Your task to perform on an android device: Open Google Chrome Image 0: 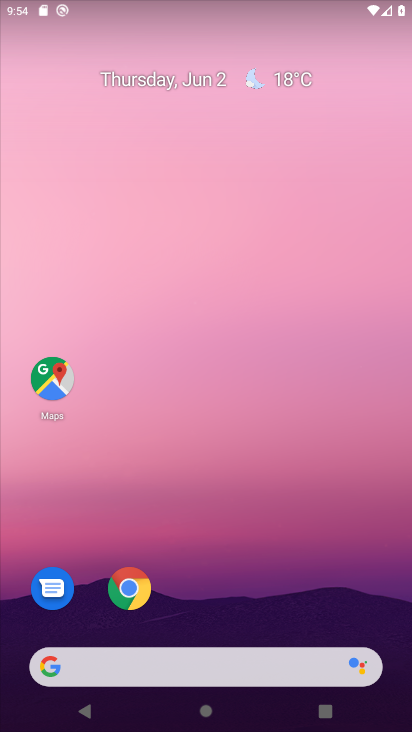
Step 0: drag from (271, 711) to (211, 127)
Your task to perform on an android device: Open Google Chrome Image 1: 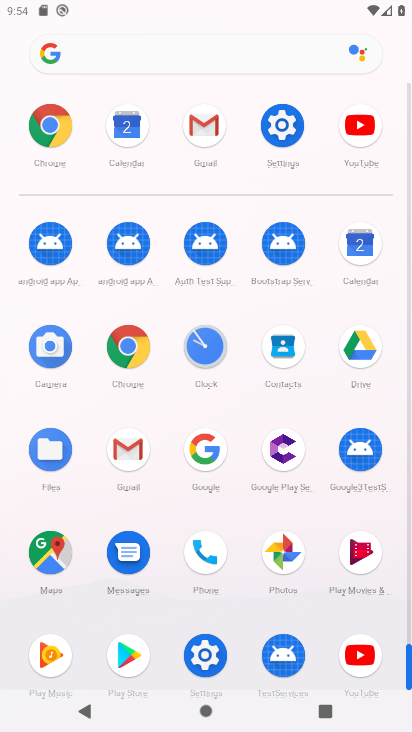
Step 1: click (45, 129)
Your task to perform on an android device: Open Google Chrome Image 2: 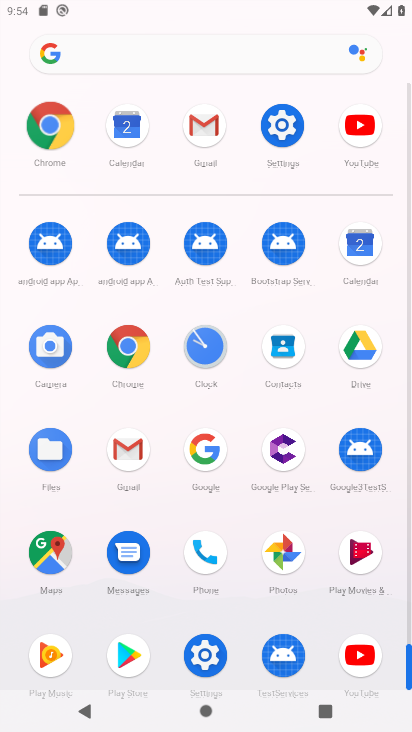
Step 2: click (45, 129)
Your task to perform on an android device: Open Google Chrome Image 3: 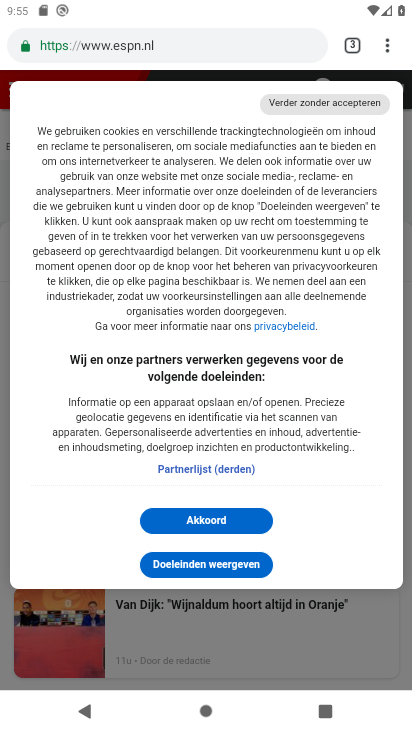
Step 3: click (386, 54)
Your task to perform on an android device: Open Google Chrome Image 4: 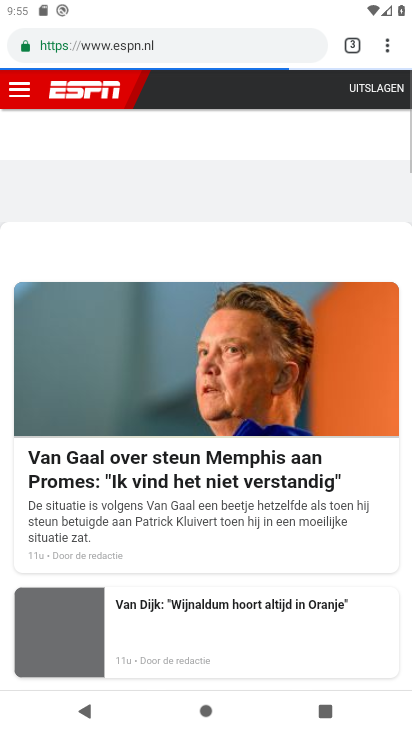
Step 4: drag from (389, 48) to (235, 89)
Your task to perform on an android device: Open Google Chrome Image 5: 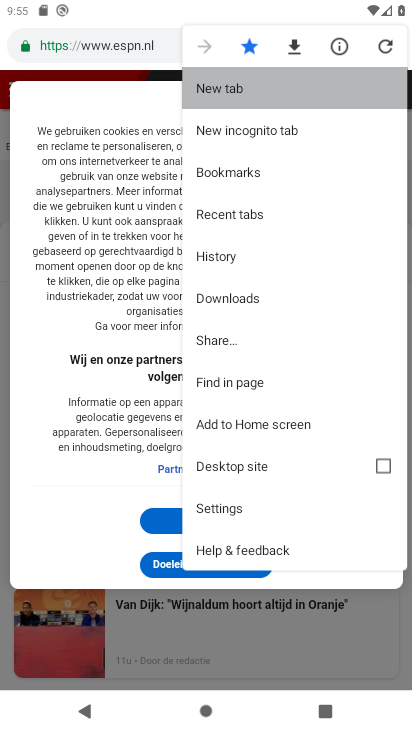
Step 5: click (236, 86)
Your task to perform on an android device: Open Google Chrome Image 6: 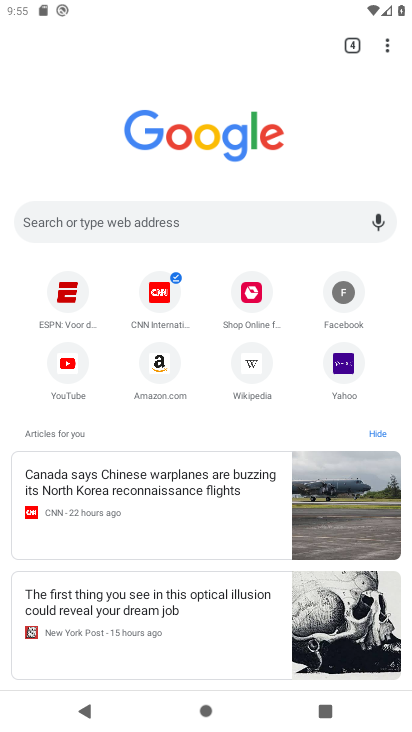
Step 6: task complete